Your task to perform on an android device: turn off picture-in-picture Image 0: 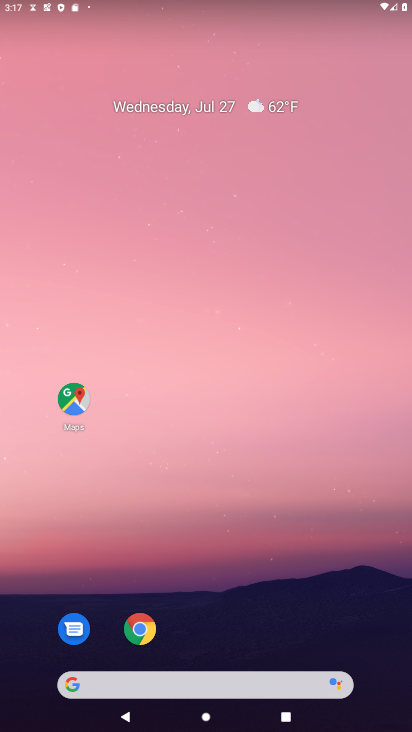
Step 0: click (139, 628)
Your task to perform on an android device: turn off picture-in-picture Image 1: 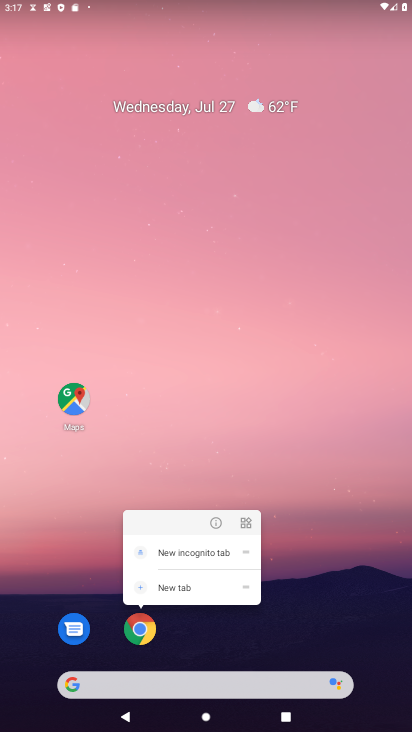
Step 1: click (216, 521)
Your task to perform on an android device: turn off picture-in-picture Image 2: 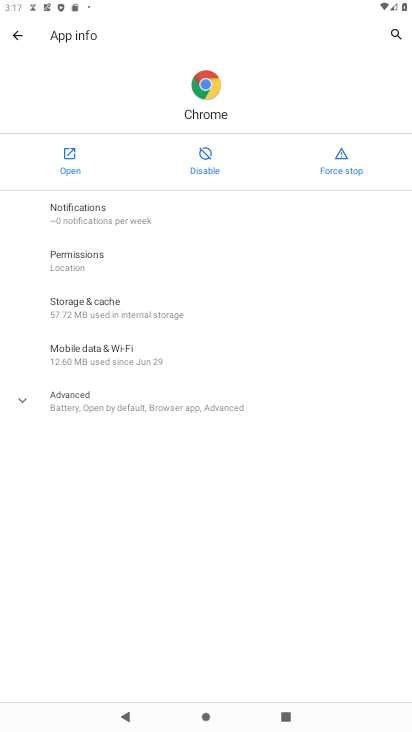
Step 2: click (124, 406)
Your task to perform on an android device: turn off picture-in-picture Image 3: 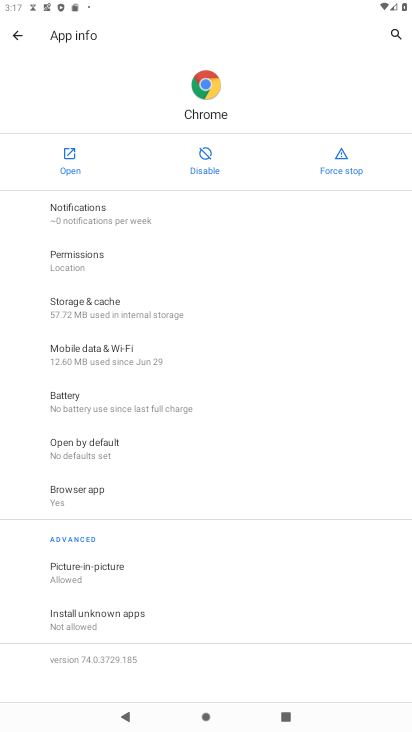
Step 3: click (76, 566)
Your task to perform on an android device: turn off picture-in-picture Image 4: 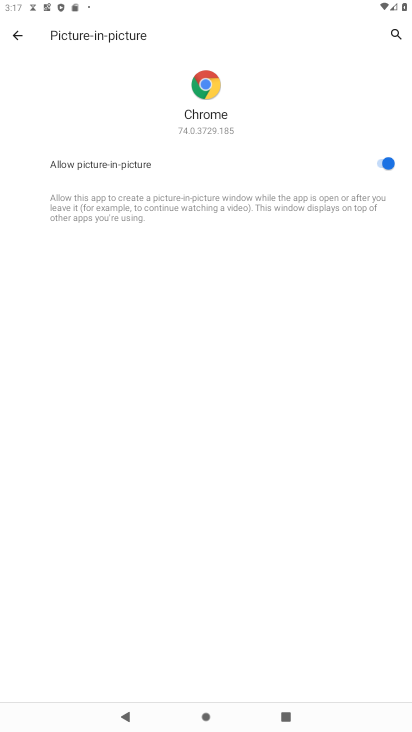
Step 4: click (381, 164)
Your task to perform on an android device: turn off picture-in-picture Image 5: 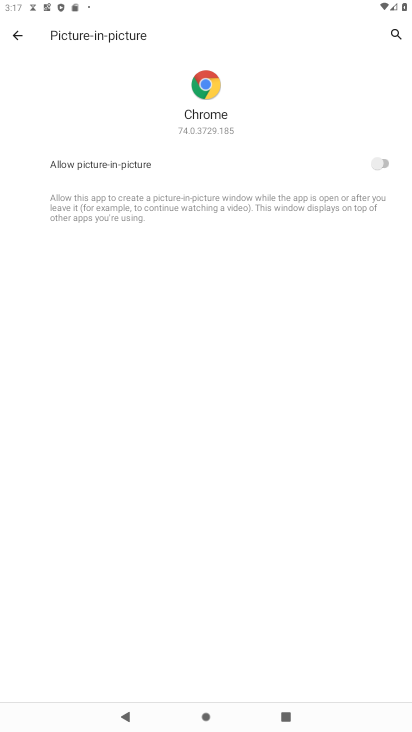
Step 5: task complete